Your task to perform on an android device: add a contact Image 0: 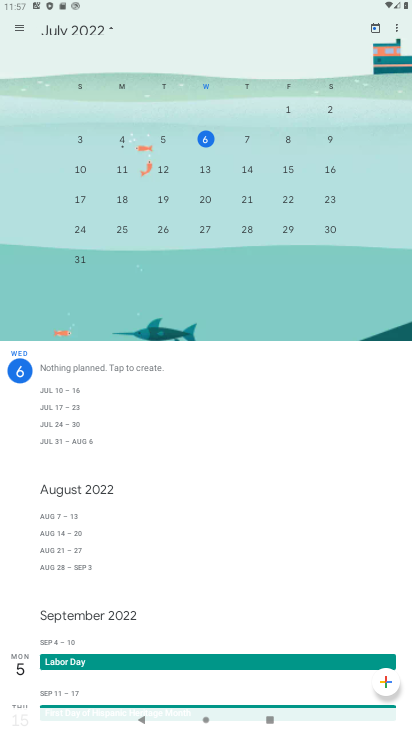
Step 0: press home button
Your task to perform on an android device: add a contact Image 1: 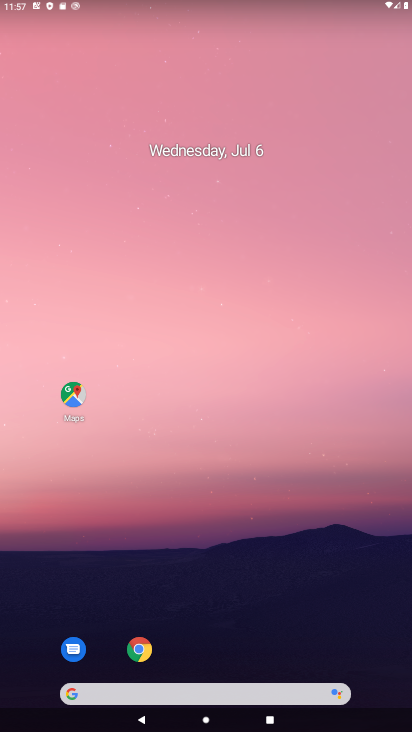
Step 1: drag from (14, 705) to (303, 53)
Your task to perform on an android device: add a contact Image 2: 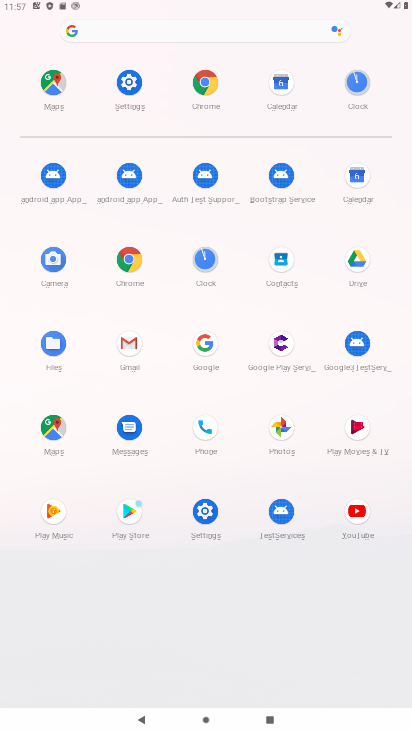
Step 2: click (280, 265)
Your task to perform on an android device: add a contact Image 3: 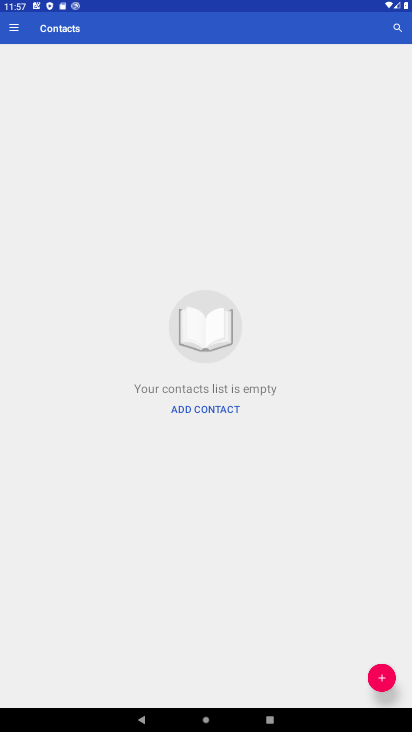
Step 3: click (377, 673)
Your task to perform on an android device: add a contact Image 4: 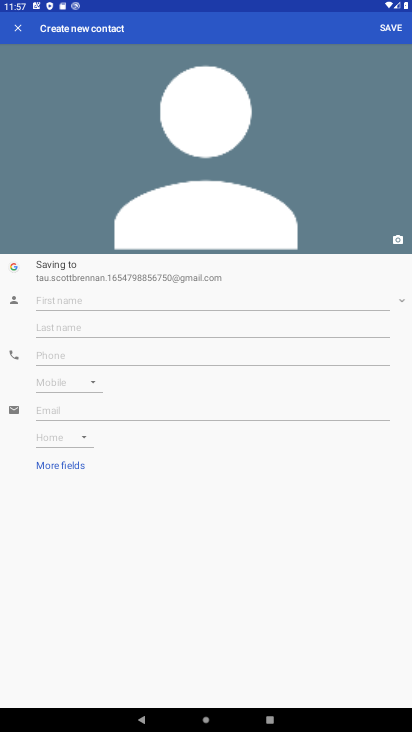
Step 4: click (66, 295)
Your task to perform on an android device: add a contact Image 5: 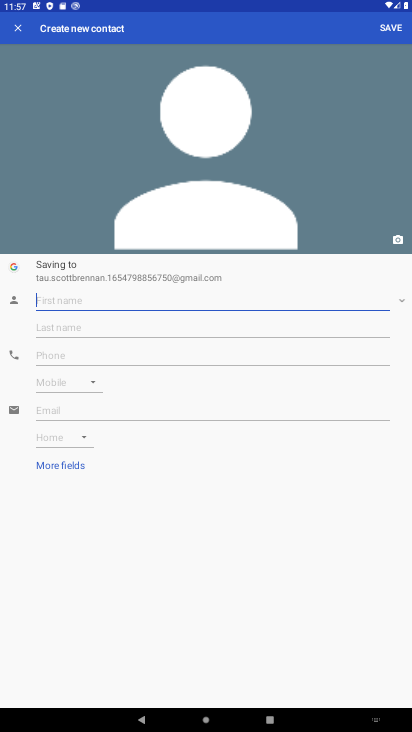
Step 5: type "masoom"
Your task to perform on an android device: add a contact Image 6: 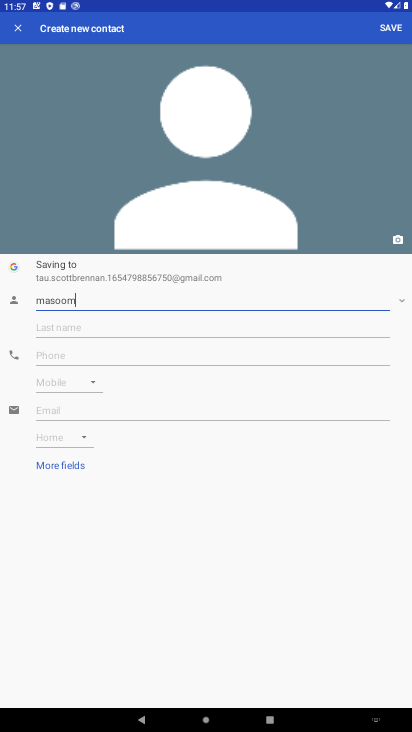
Step 6: type ""
Your task to perform on an android device: add a contact Image 7: 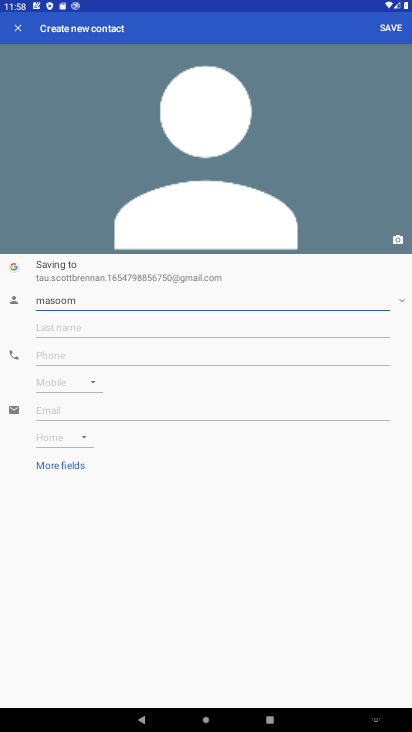
Step 7: click (391, 29)
Your task to perform on an android device: add a contact Image 8: 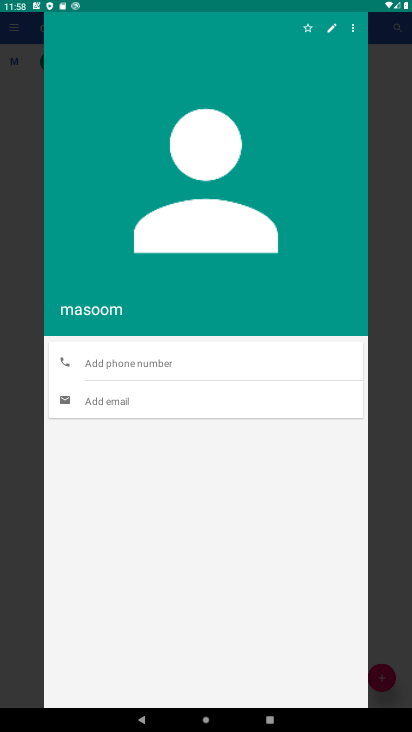
Step 8: task complete